Your task to perform on an android device: Open maps Image 0: 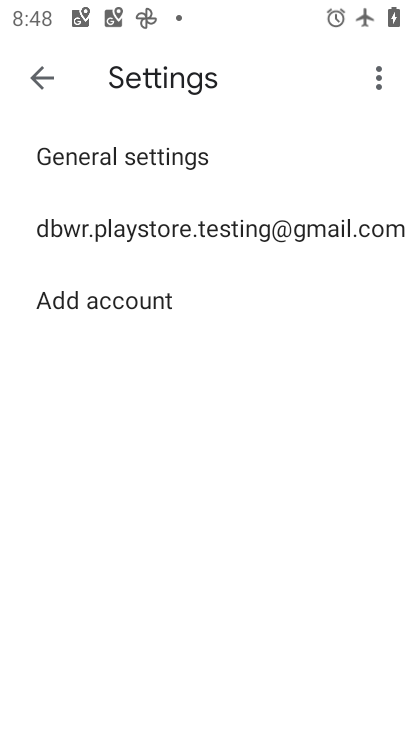
Step 0: press home button
Your task to perform on an android device: Open maps Image 1: 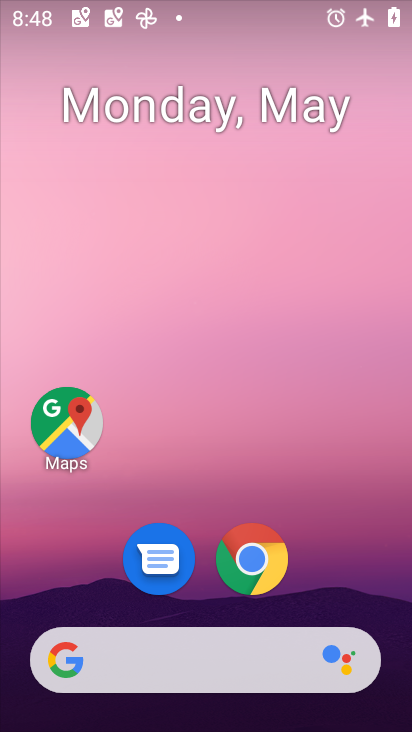
Step 1: drag from (391, 621) to (311, 147)
Your task to perform on an android device: Open maps Image 2: 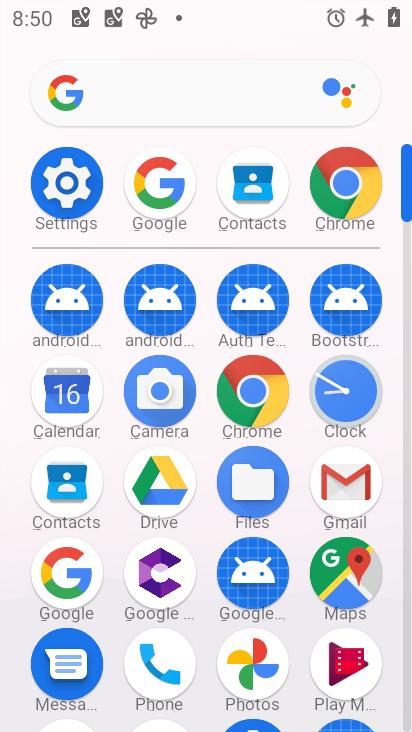
Step 2: click (349, 580)
Your task to perform on an android device: Open maps Image 3: 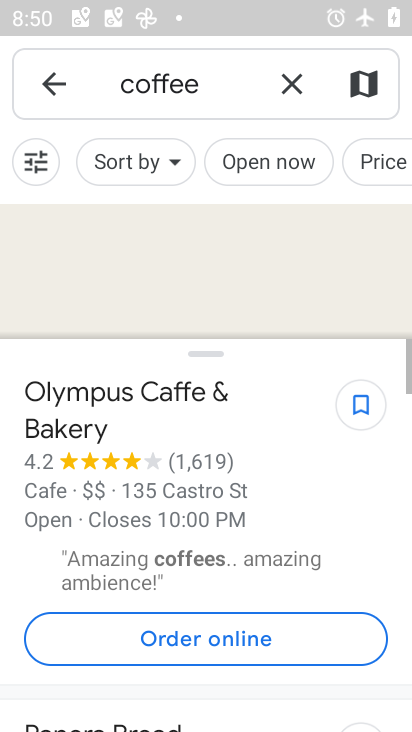
Step 3: task complete